Your task to perform on an android device: Go to internet settings Image 0: 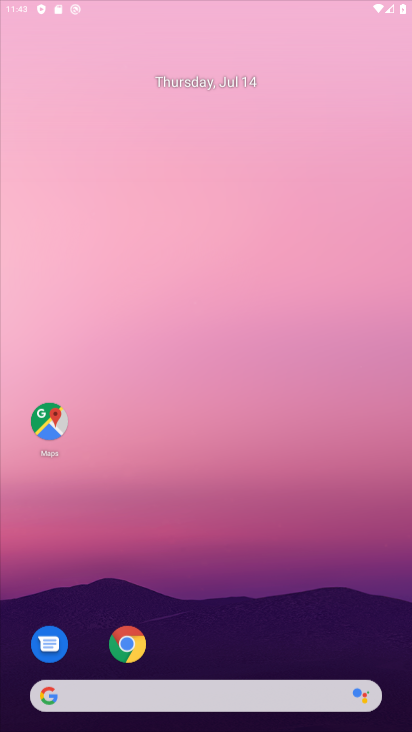
Step 0: click (240, 388)
Your task to perform on an android device: Go to internet settings Image 1: 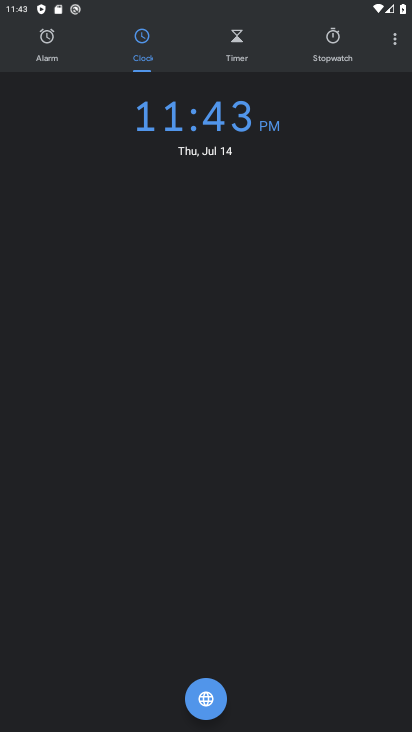
Step 1: press home button
Your task to perform on an android device: Go to internet settings Image 2: 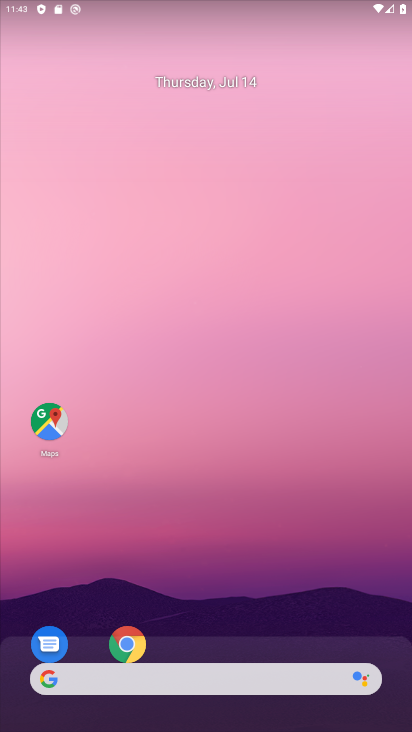
Step 2: drag from (128, 649) to (141, 310)
Your task to perform on an android device: Go to internet settings Image 3: 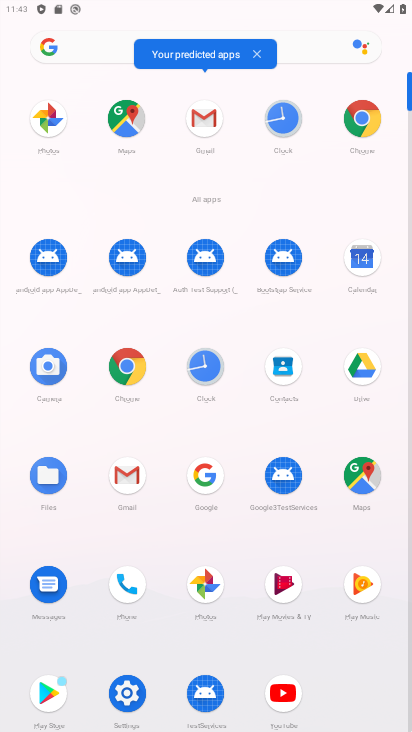
Step 3: click (111, 685)
Your task to perform on an android device: Go to internet settings Image 4: 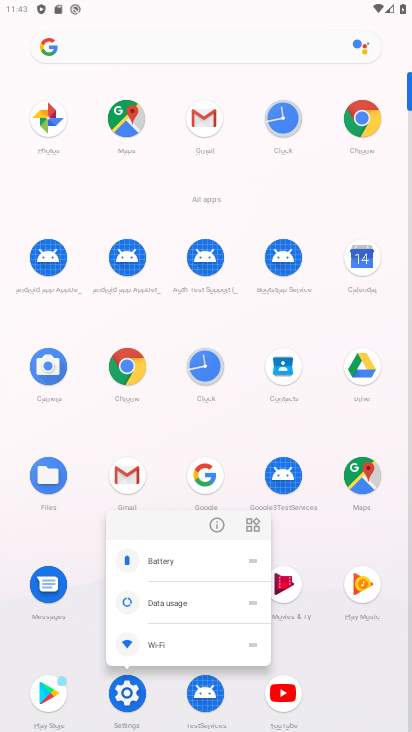
Step 4: click (126, 695)
Your task to perform on an android device: Go to internet settings Image 5: 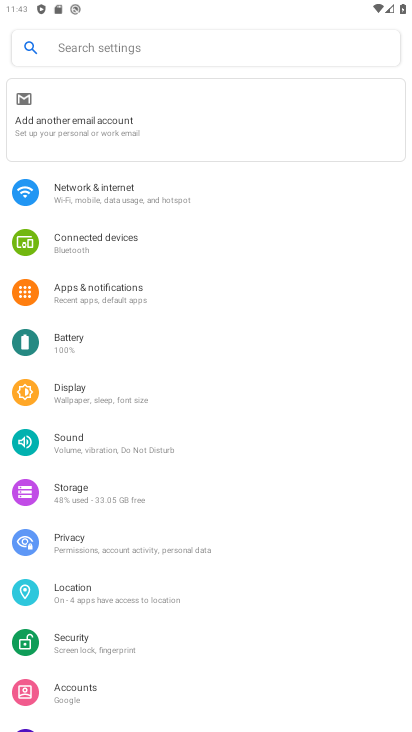
Step 5: click (68, 196)
Your task to perform on an android device: Go to internet settings Image 6: 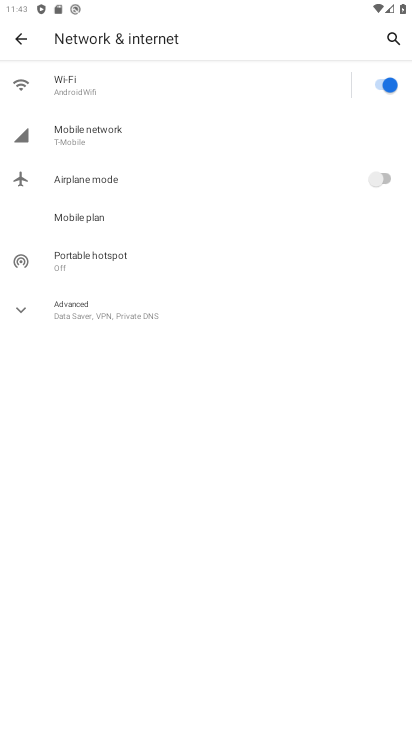
Step 6: click (97, 313)
Your task to perform on an android device: Go to internet settings Image 7: 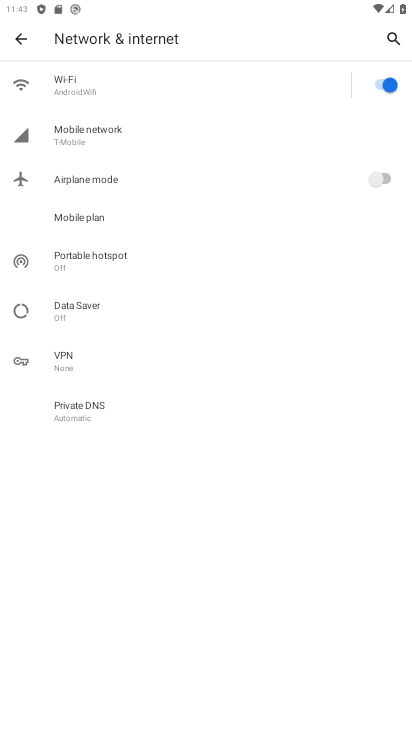
Step 7: task complete